Your task to perform on an android device: allow cookies in the chrome app Image 0: 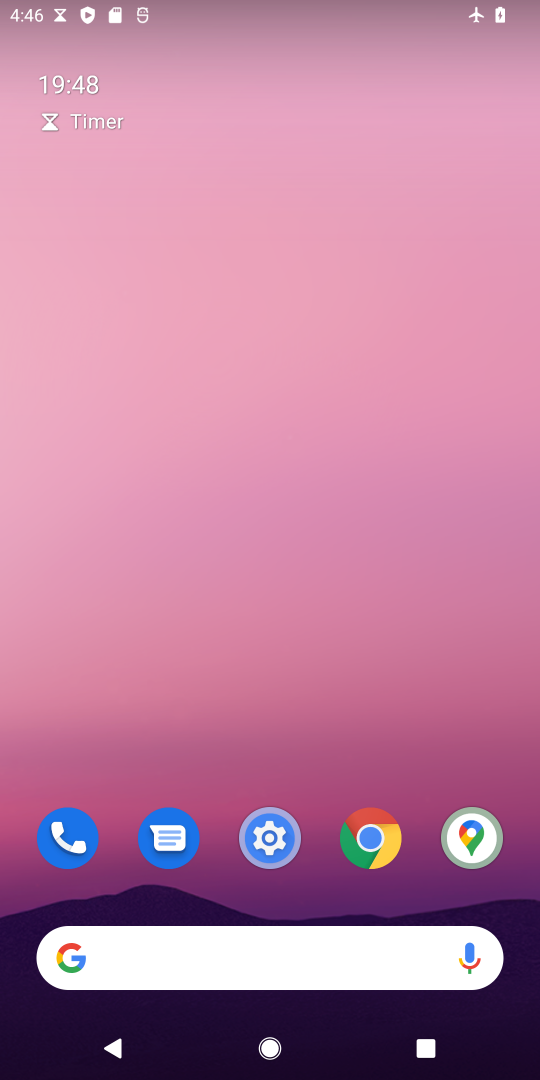
Step 0: drag from (327, 781) to (220, 141)
Your task to perform on an android device: allow cookies in the chrome app Image 1: 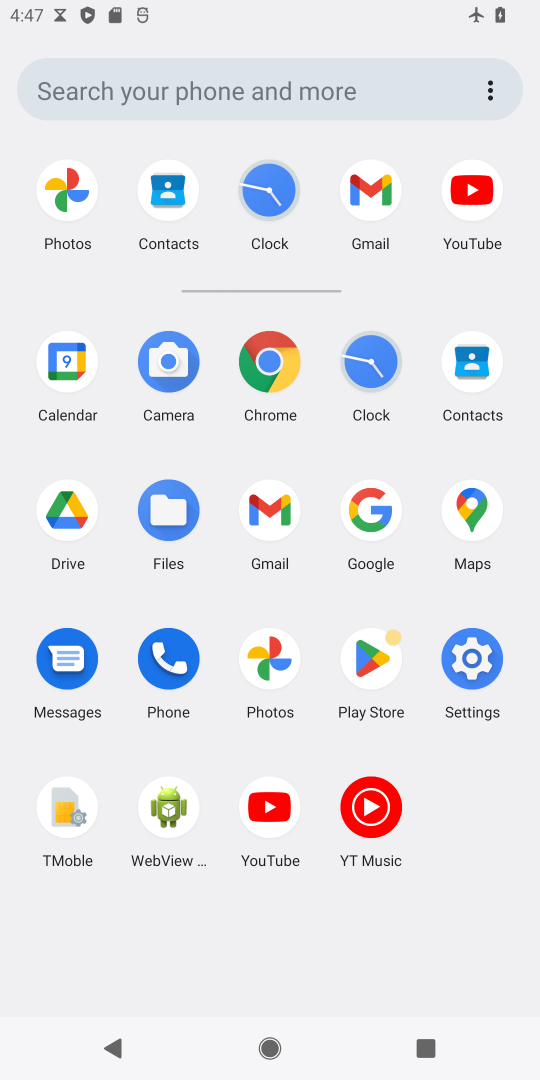
Step 1: click (278, 374)
Your task to perform on an android device: allow cookies in the chrome app Image 2: 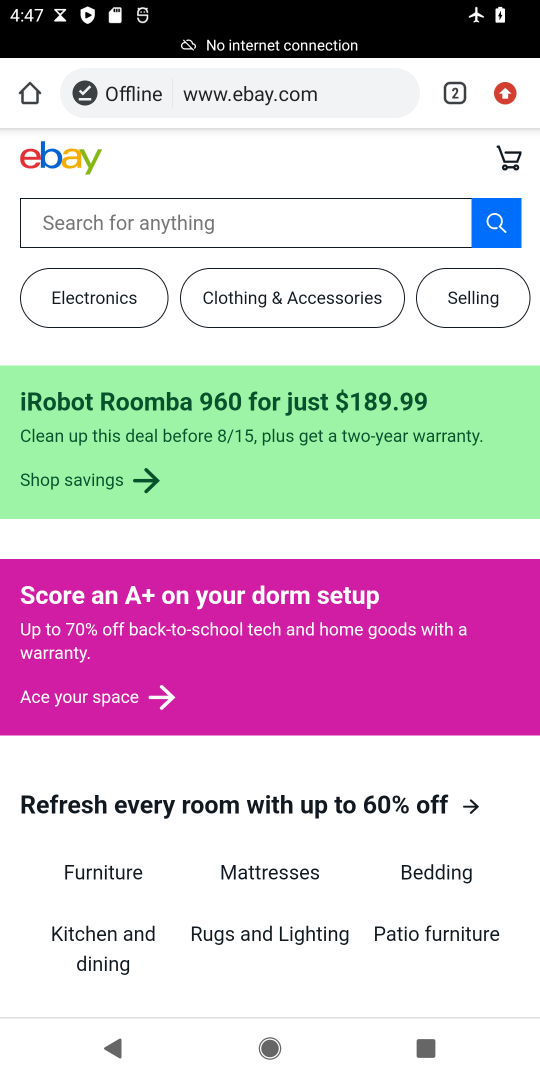
Step 2: click (501, 119)
Your task to perform on an android device: allow cookies in the chrome app Image 3: 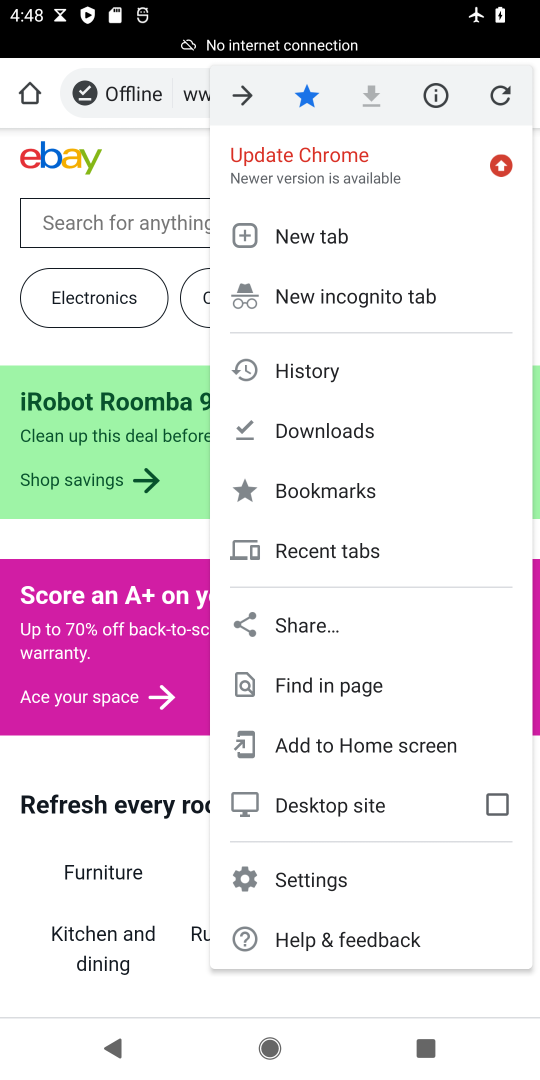
Step 3: click (379, 881)
Your task to perform on an android device: allow cookies in the chrome app Image 4: 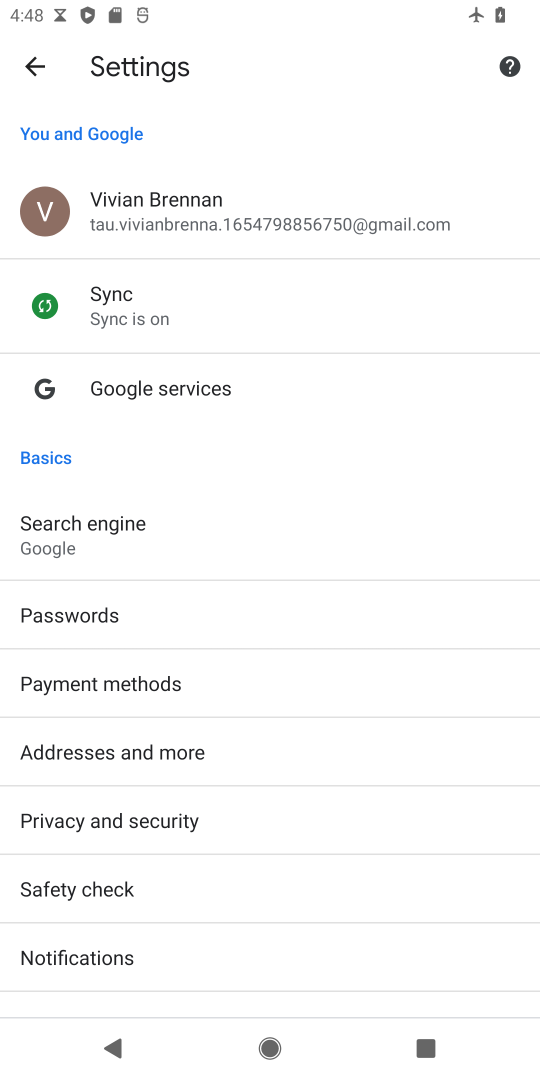
Step 4: drag from (252, 936) to (226, 293)
Your task to perform on an android device: allow cookies in the chrome app Image 5: 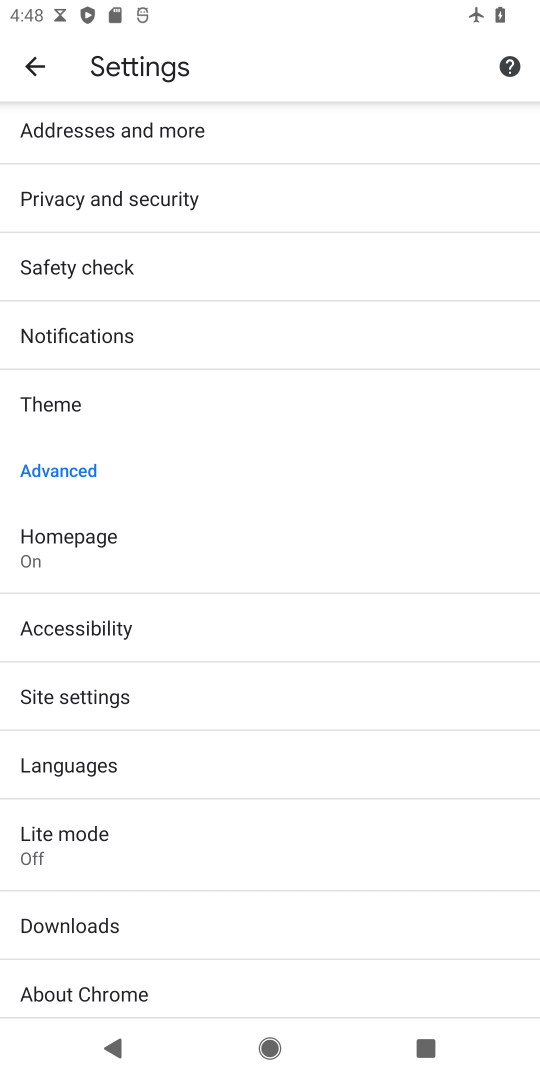
Step 5: click (243, 692)
Your task to perform on an android device: allow cookies in the chrome app Image 6: 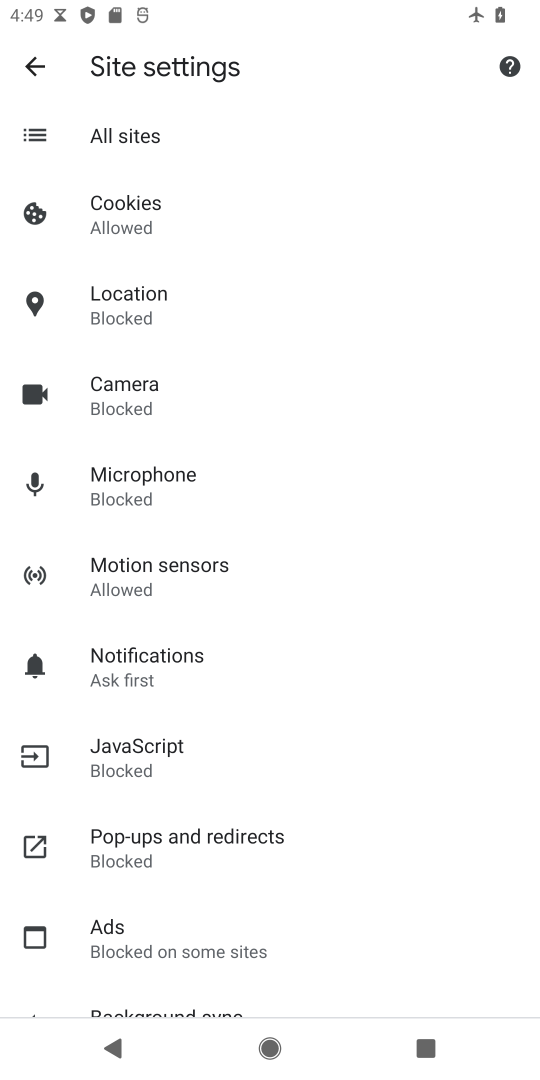
Step 6: click (177, 231)
Your task to perform on an android device: allow cookies in the chrome app Image 7: 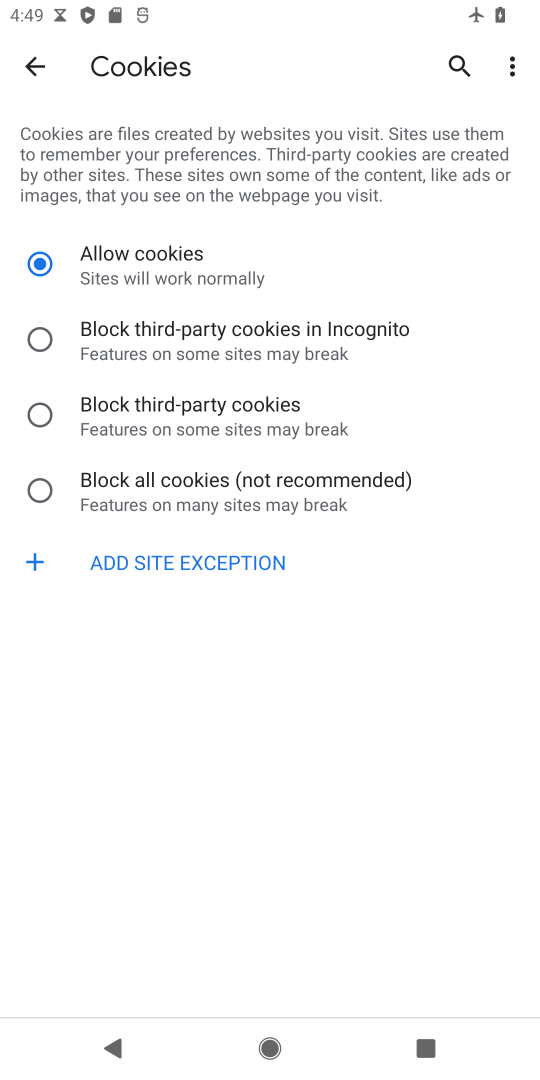
Step 7: task complete